Your task to perform on an android device: Show me productivity apps on the Play Store Image 0: 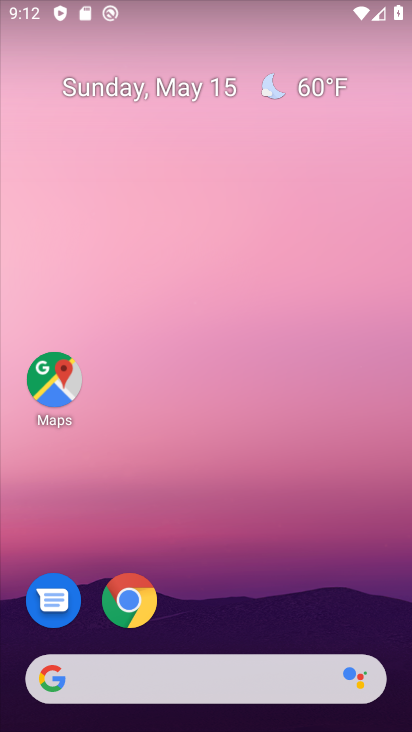
Step 0: drag from (169, 642) to (266, 117)
Your task to perform on an android device: Show me productivity apps on the Play Store Image 1: 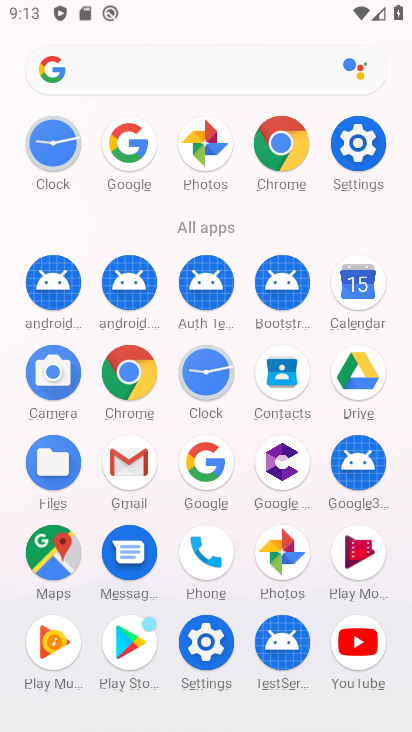
Step 1: click (130, 645)
Your task to perform on an android device: Show me productivity apps on the Play Store Image 2: 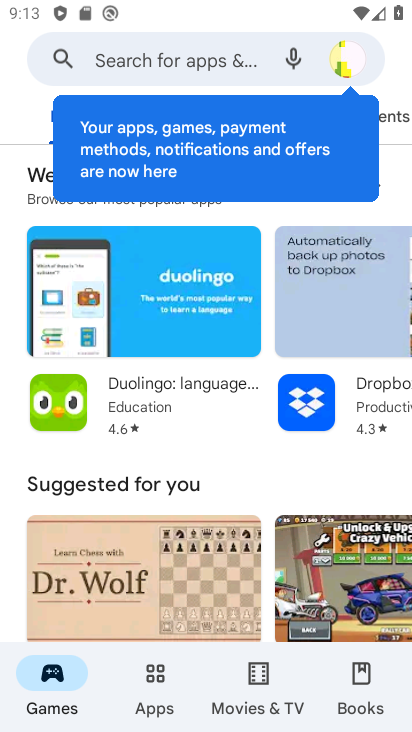
Step 2: click (150, 663)
Your task to perform on an android device: Show me productivity apps on the Play Store Image 3: 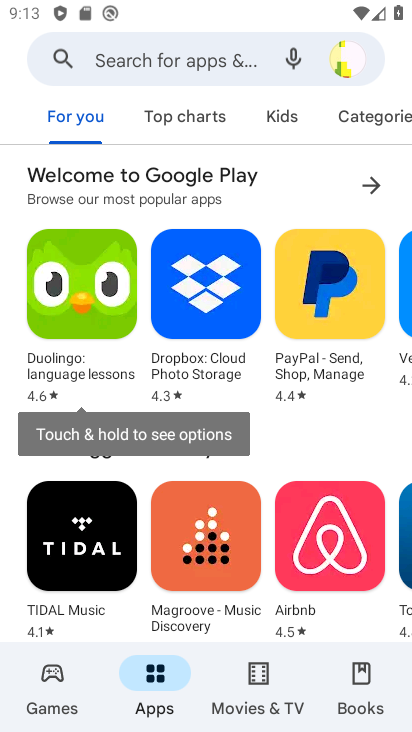
Step 3: click (374, 118)
Your task to perform on an android device: Show me productivity apps on the Play Store Image 4: 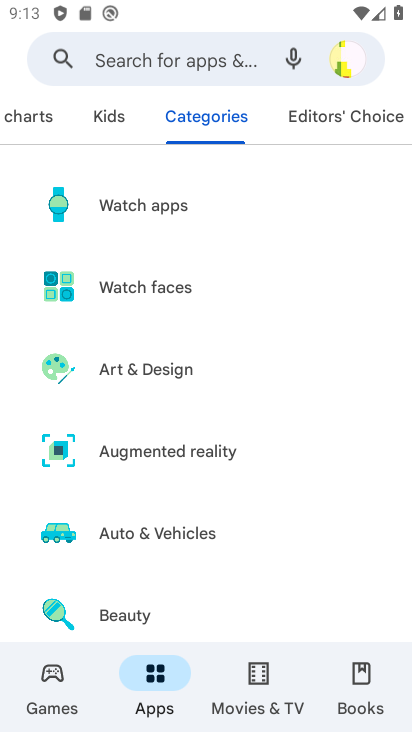
Step 4: drag from (215, 575) to (300, 163)
Your task to perform on an android device: Show me productivity apps on the Play Store Image 5: 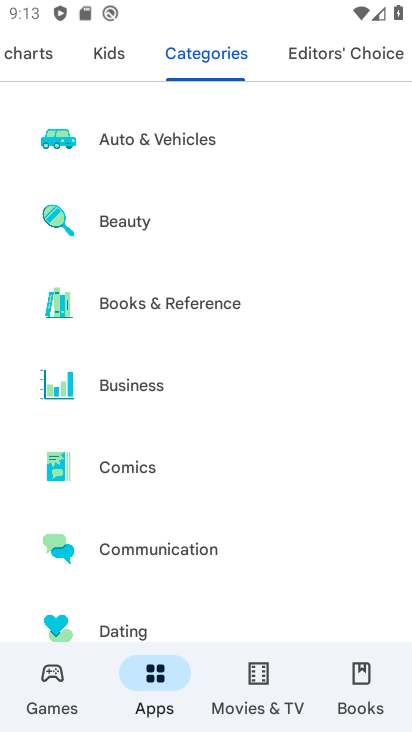
Step 5: drag from (179, 594) to (292, 59)
Your task to perform on an android device: Show me productivity apps on the Play Store Image 6: 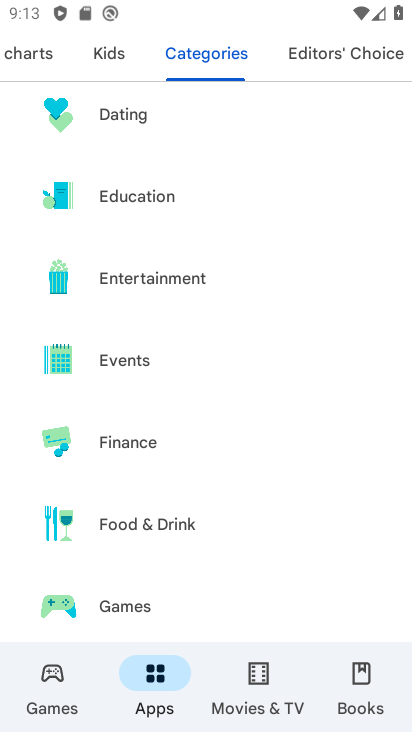
Step 6: drag from (177, 533) to (286, 115)
Your task to perform on an android device: Show me productivity apps on the Play Store Image 7: 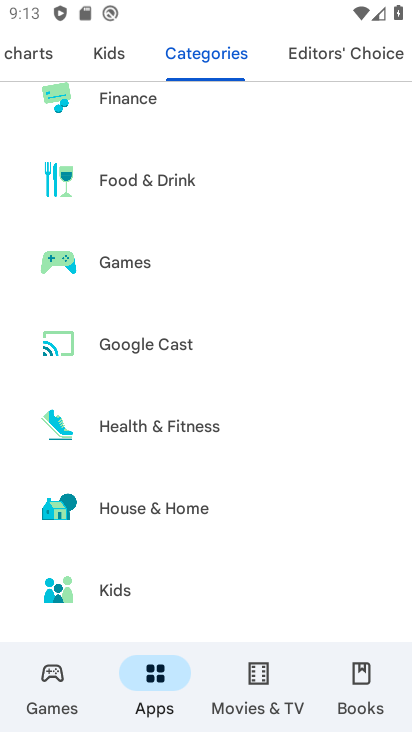
Step 7: drag from (227, 524) to (360, 64)
Your task to perform on an android device: Show me productivity apps on the Play Store Image 8: 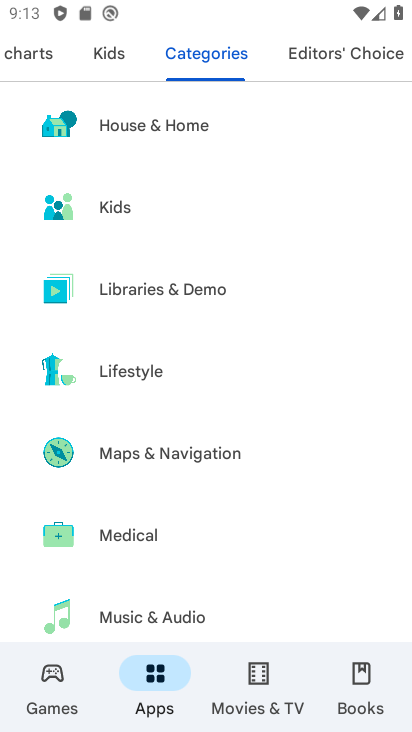
Step 8: drag from (205, 576) to (317, 127)
Your task to perform on an android device: Show me productivity apps on the Play Store Image 9: 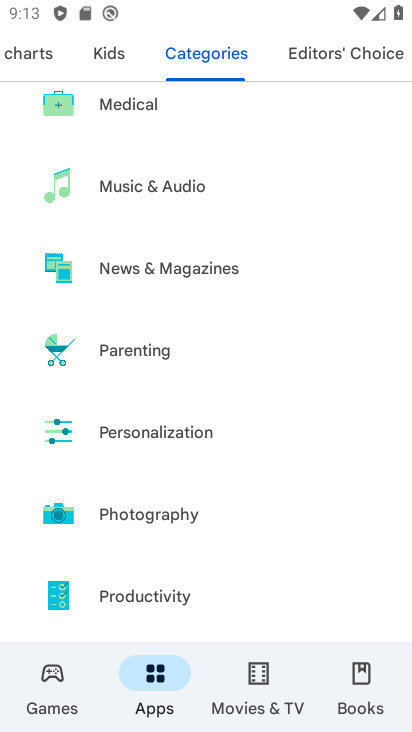
Step 9: drag from (209, 539) to (296, 225)
Your task to perform on an android device: Show me productivity apps on the Play Store Image 10: 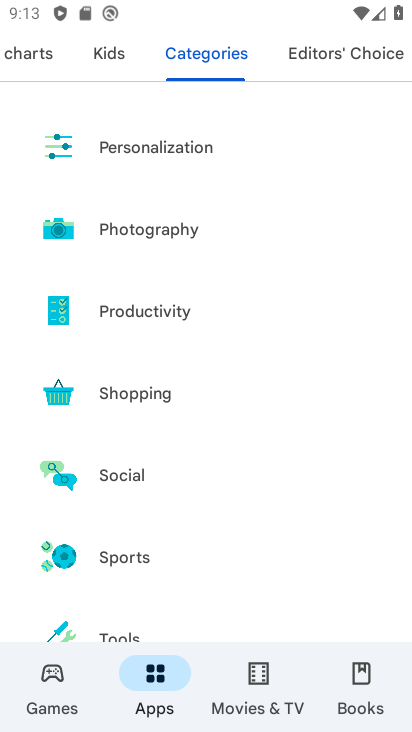
Step 10: click (190, 303)
Your task to perform on an android device: Show me productivity apps on the Play Store Image 11: 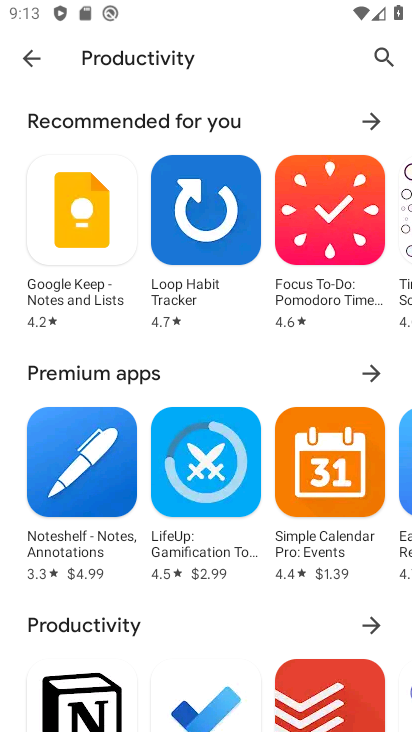
Step 11: task complete